Your task to perform on an android device: What's the weather? Image 0: 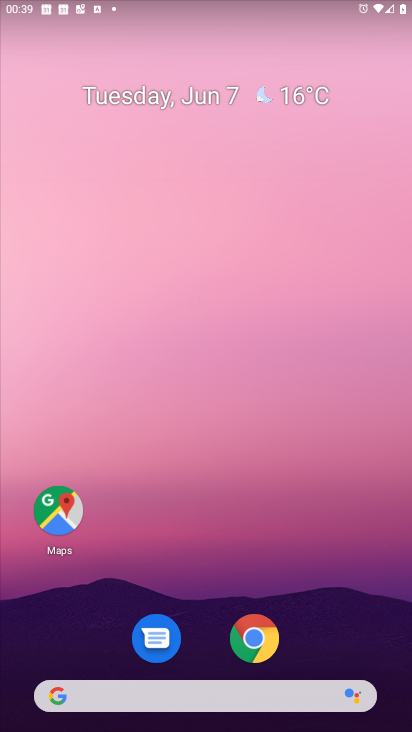
Step 0: drag from (242, 713) to (213, 96)
Your task to perform on an android device: What's the weather? Image 1: 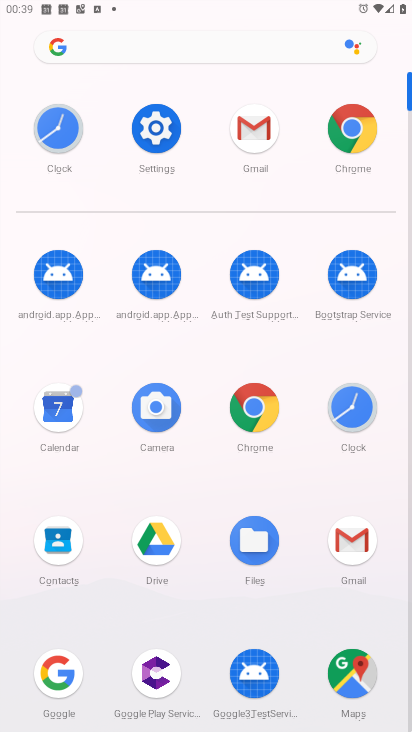
Step 1: click (167, 43)
Your task to perform on an android device: What's the weather? Image 2: 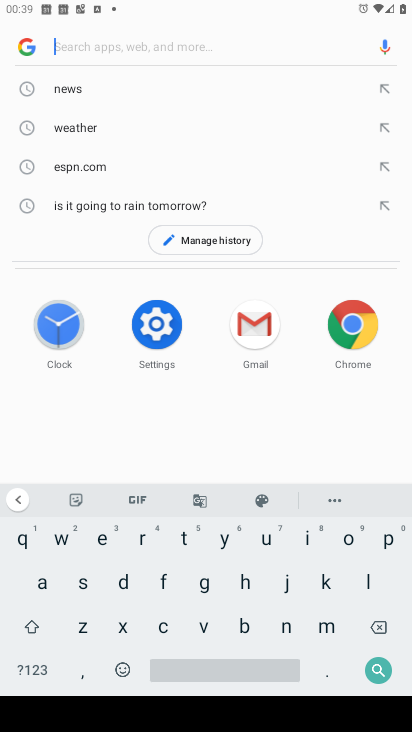
Step 2: click (76, 119)
Your task to perform on an android device: What's the weather? Image 3: 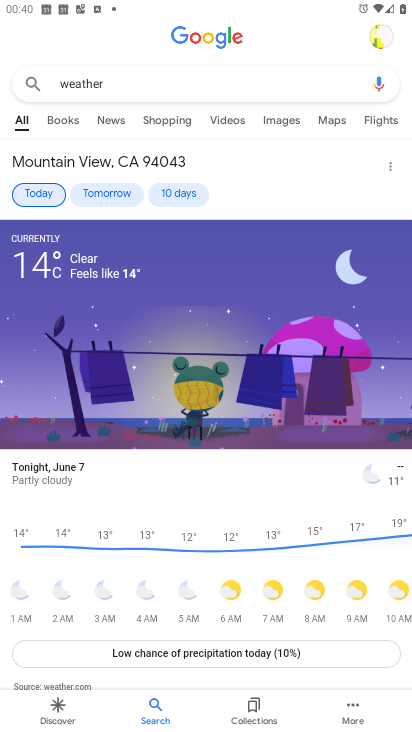
Step 3: task complete